Your task to perform on an android device: check out phone information Image 0: 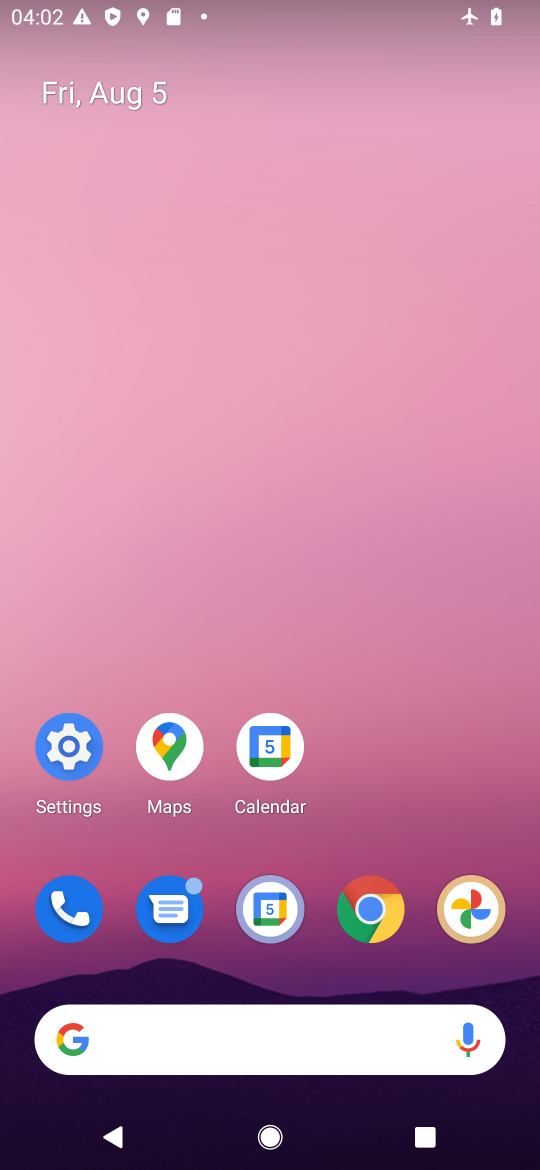
Step 0: click (68, 748)
Your task to perform on an android device: check out phone information Image 1: 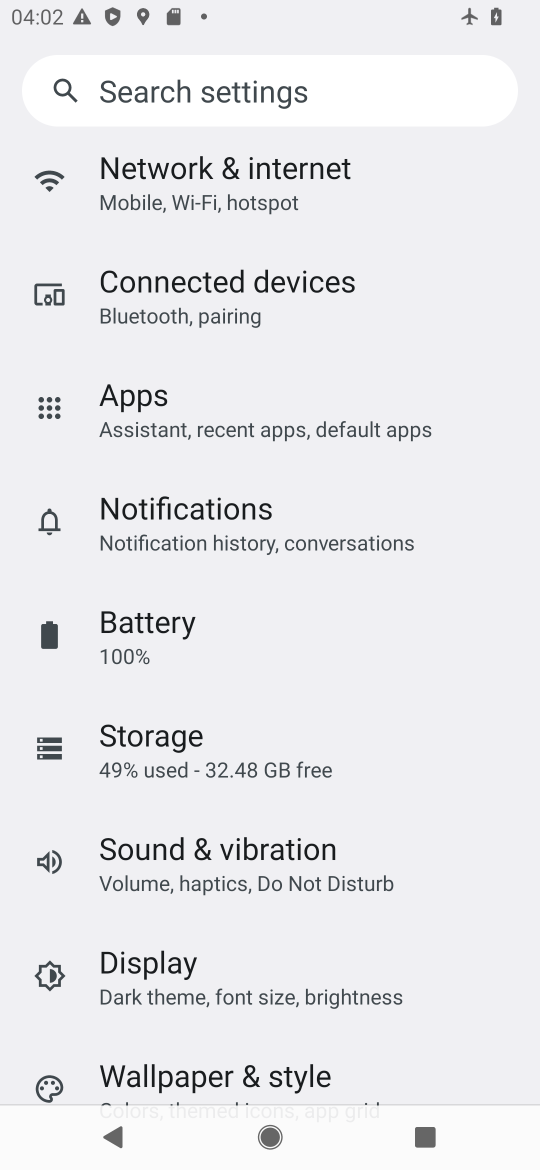
Step 1: drag from (404, 956) to (401, 470)
Your task to perform on an android device: check out phone information Image 2: 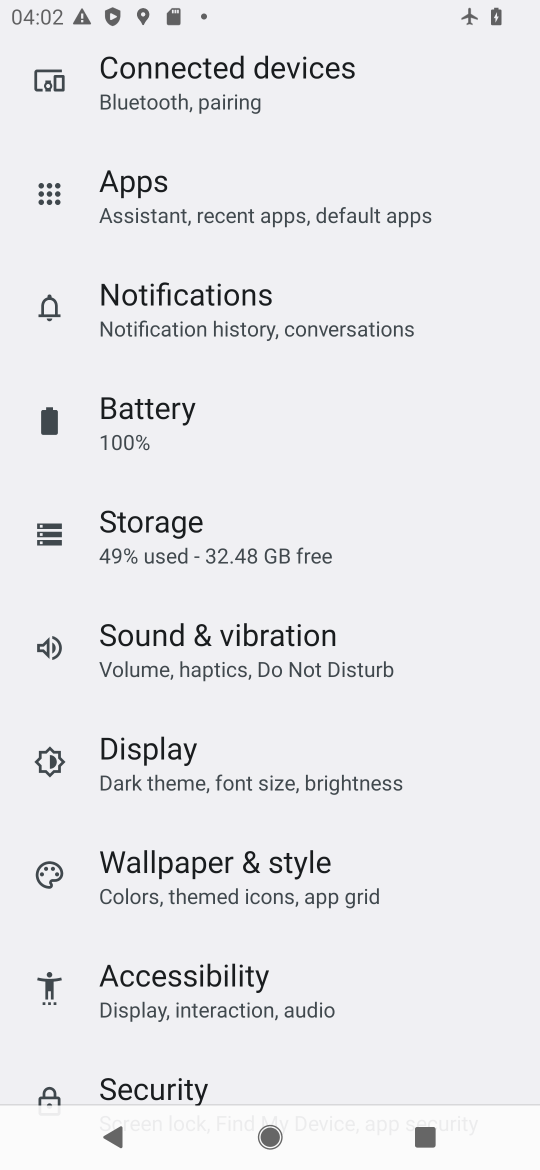
Step 2: drag from (367, 957) to (394, 391)
Your task to perform on an android device: check out phone information Image 3: 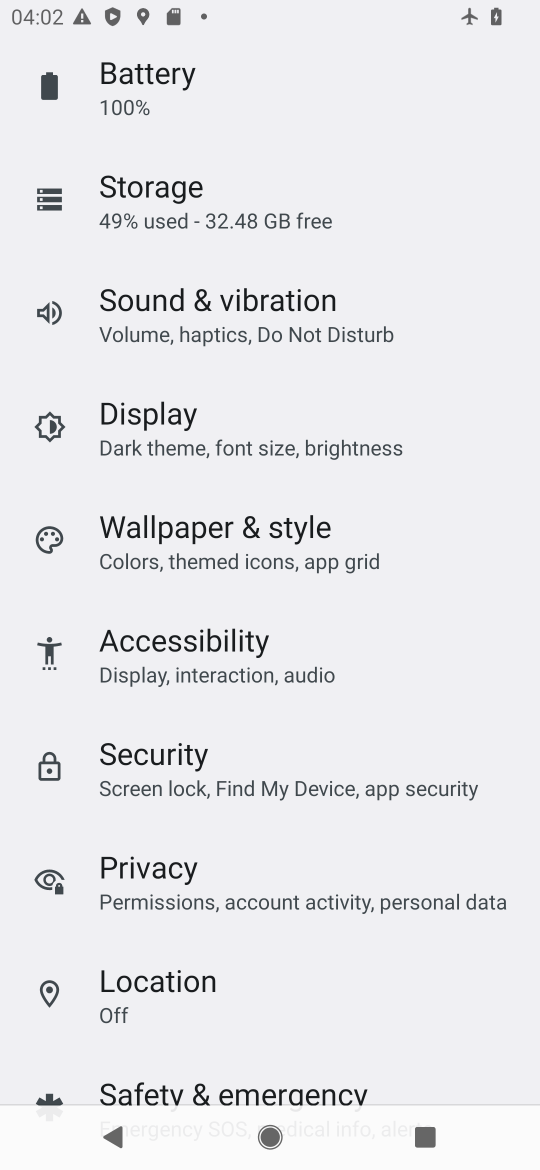
Step 3: drag from (338, 966) to (377, 260)
Your task to perform on an android device: check out phone information Image 4: 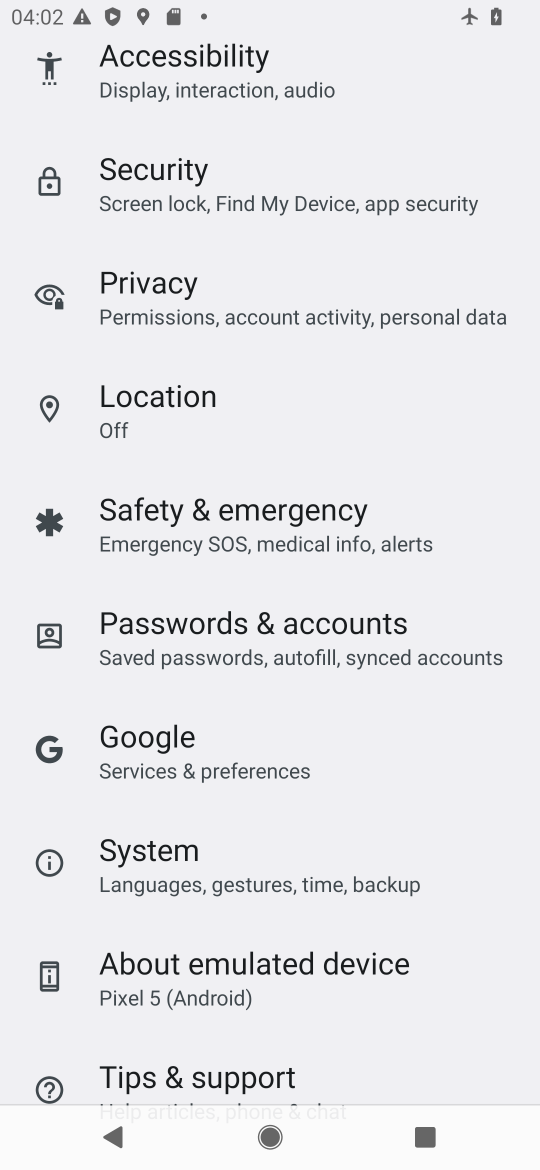
Step 4: drag from (361, 1004) to (294, 266)
Your task to perform on an android device: check out phone information Image 5: 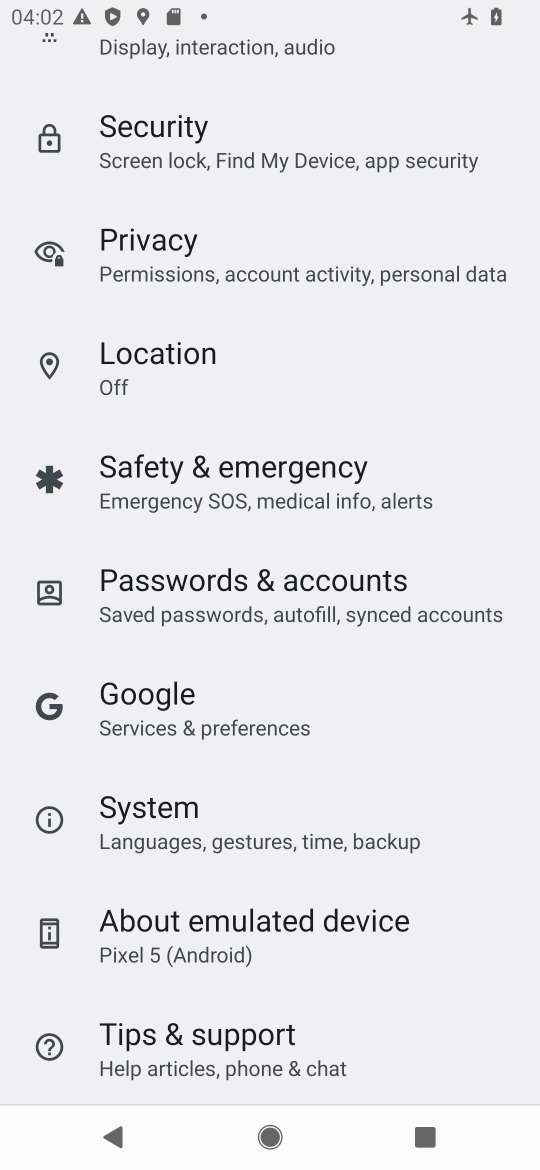
Step 5: click (211, 912)
Your task to perform on an android device: check out phone information Image 6: 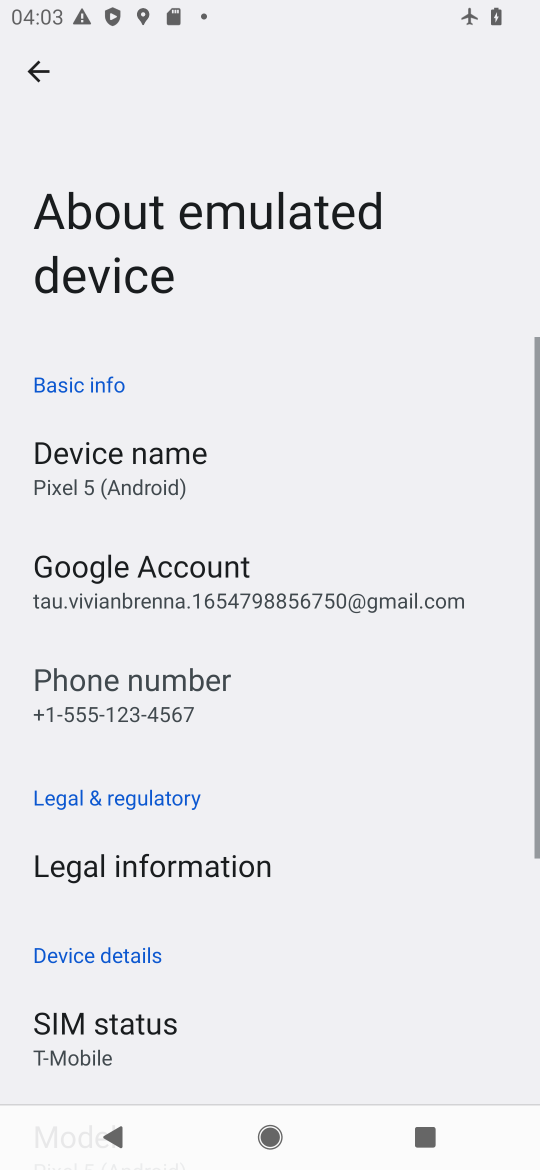
Step 6: task complete